Your task to perform on an android device: toggle show notifications on the lock screen Image 0: 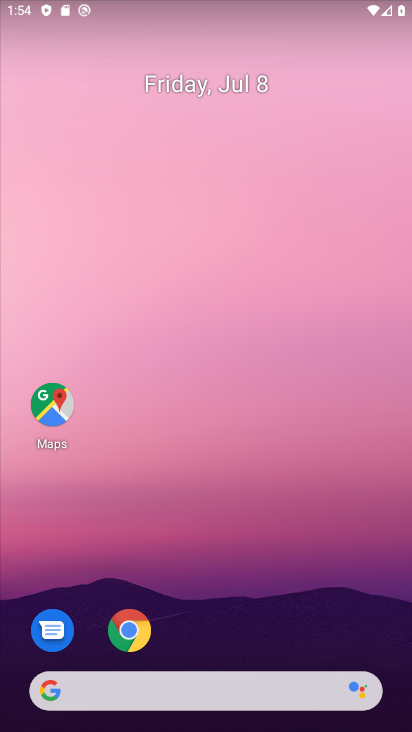
Step 0: drag from (297, 585) to (249, 147)
Your task to perform on an android device: toggle show notifications on the lock screen Image 1: 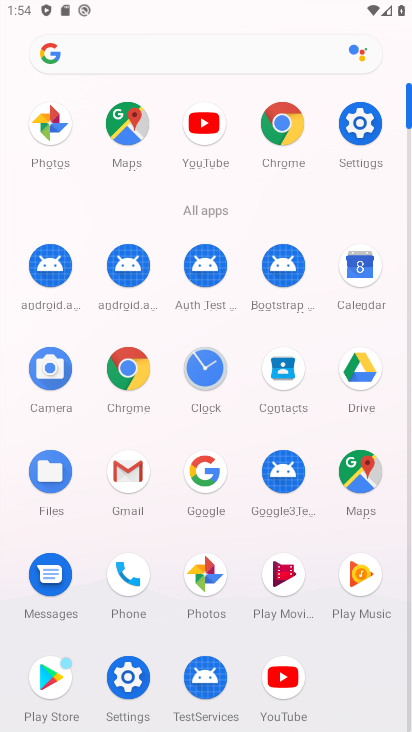
Step 1: click (362, 127)
Your task to perform on an android device: toggle show notifications on the lock screen Image 2: 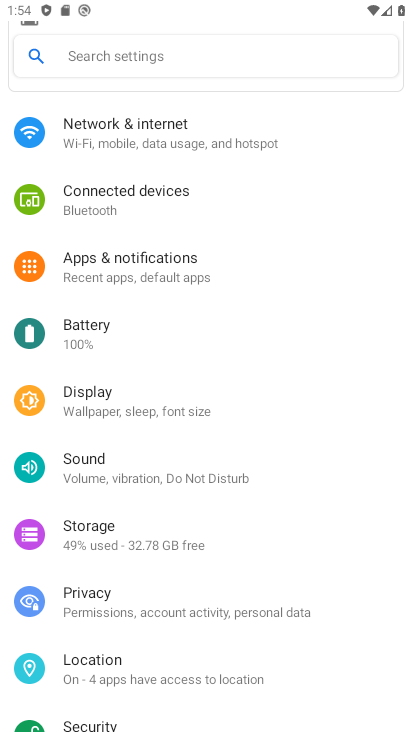
Step 2: click (178, 267)
Your task to perform on an android device: toggle show notifications on the lock screen Image 3: 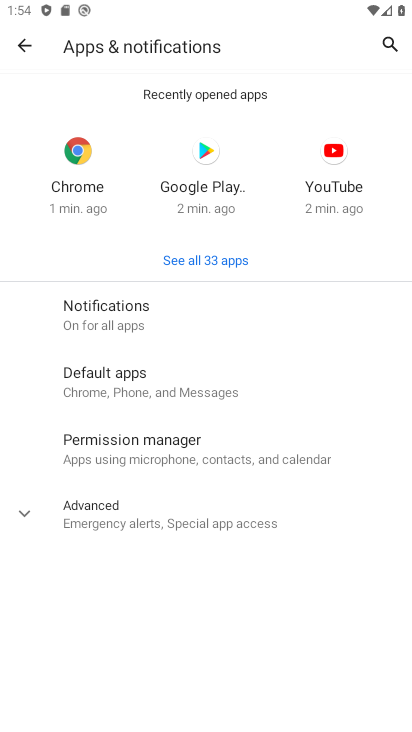
Step 3: click (125, 322)
Your task to perform on an android device: toggle show notifications on the lock screen Image 4: 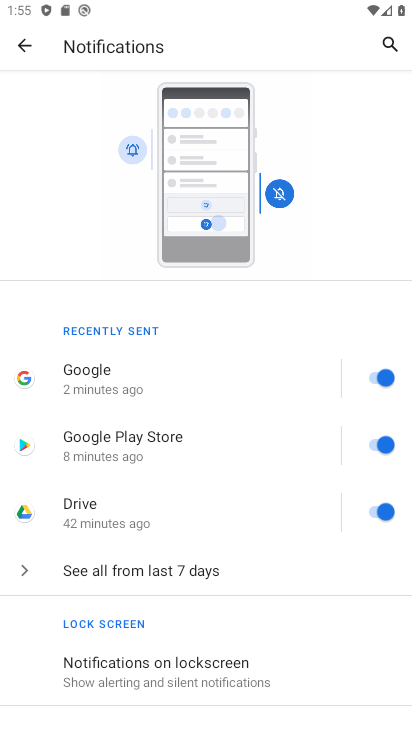
Step 4: click (206, 679)
Your task to perform on an android device: toggle show notifications on the lock screen Image 5: 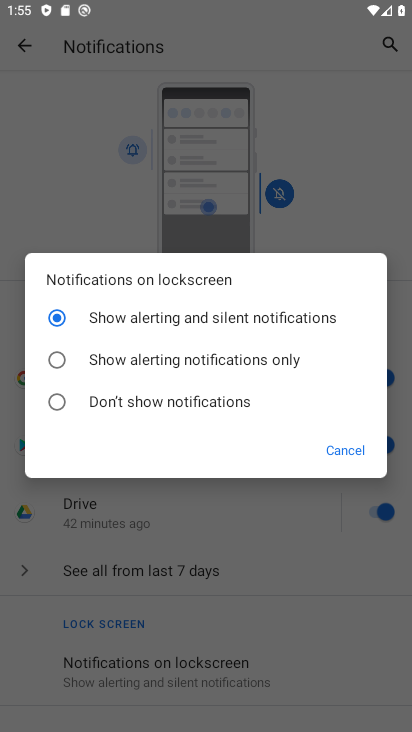
Step 5: click (126, 354)
Your task to perform on an android device: toggle show notifications on the lock screen Image 6: 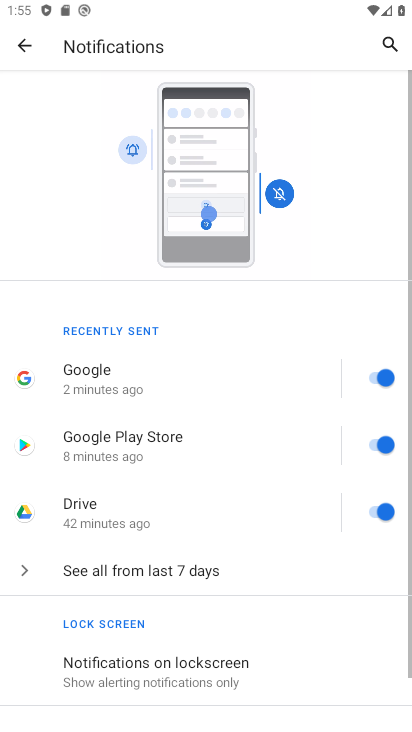
Step 6: task complete